Your task to perform on an android device: open app "Facebook Messenger" (install if not already installed) and go to login screen Image 0: 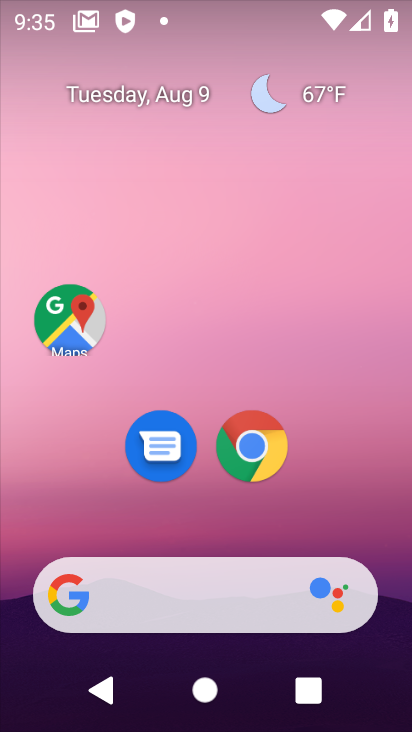
Step 0: drag from (218, 438) to (223, 16)
Your task to perform on an android device: open app "Facebook Messenger" (install if not already installed) and go to login screen Image 1: 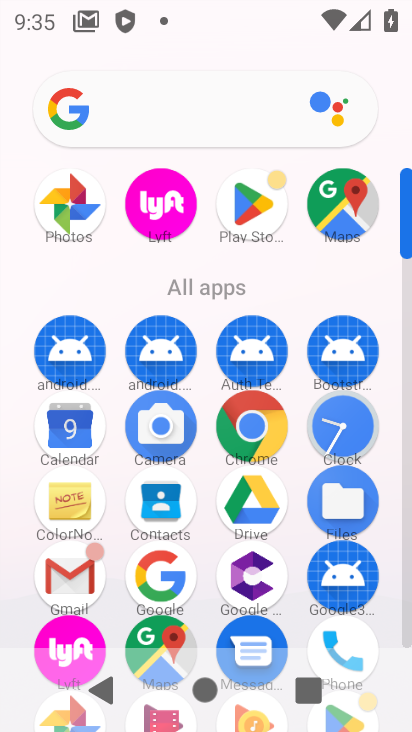
Step 1: click (252, 197)
Your task to perform on an android device: open app "Facebook Messenger" (install if not already installed) and go to login screen Image 2: 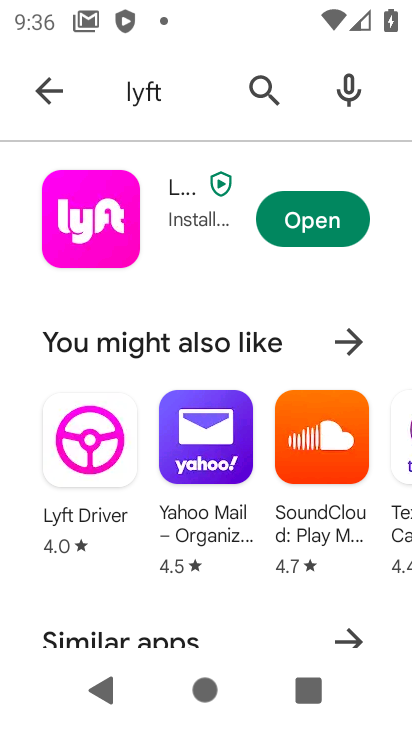
Step 2: click (261, 82)
Your task to perform on an android device: open app "Facebook Messenger" (install if not already installed) and go to login screen Image 3: 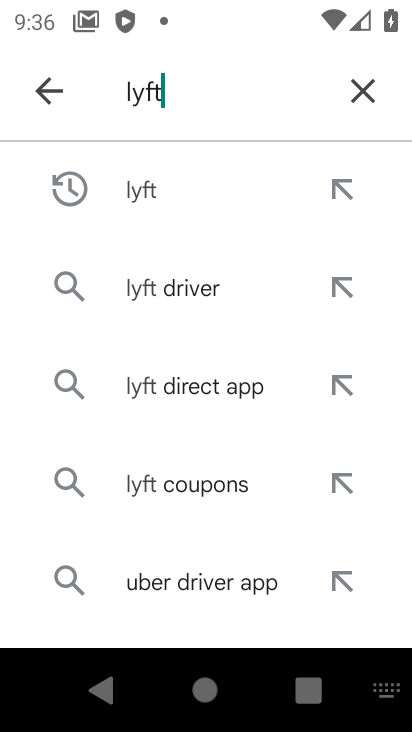
Step 3: click (372, 97)
Your task to perform on an android device: open app "Facebook Messenger" (install if not already installed) and go to login screen Image 4: 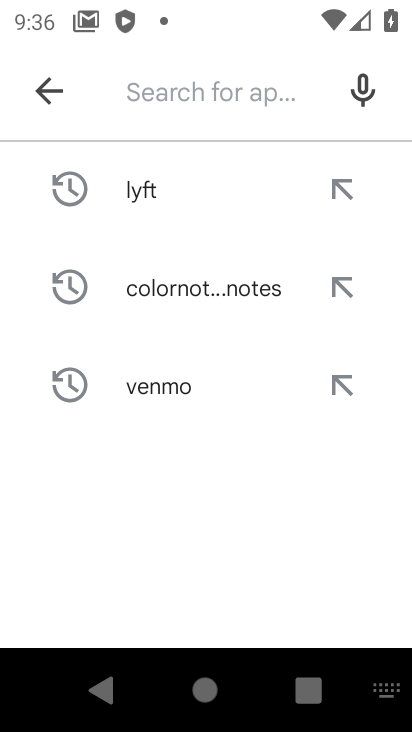
Step 4: click (165, 97)
Your task to perform on an android device: open app "Facebook Messenger" (install if not already installed) and go to login screen Image 5: 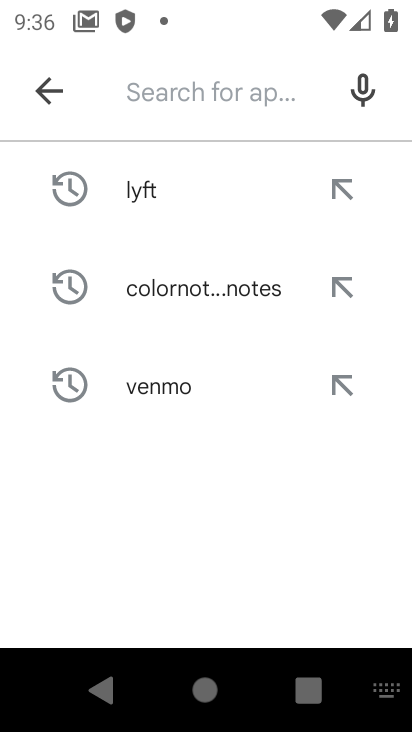
Step 5: type "facebook messenger"
Your task to perform on an android device: open app "Facebook Messenger" (install if not already installed) and go to login screen Image 6: 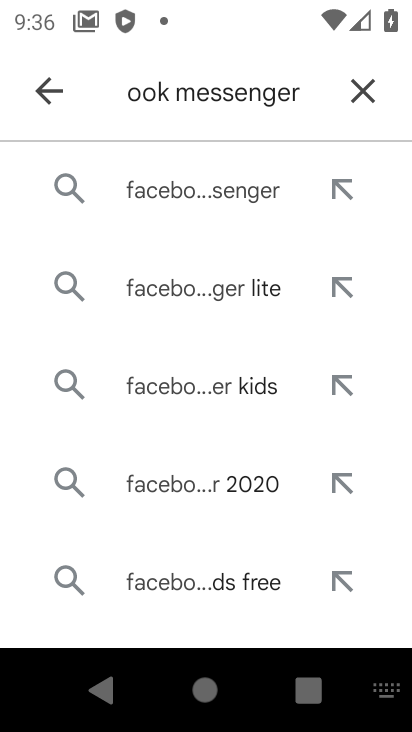
Step 6: click (182, 193)
Your task to perform on an android device: open app "Facebook Messenger" (install if not already installed) and go to login screen Image 7: 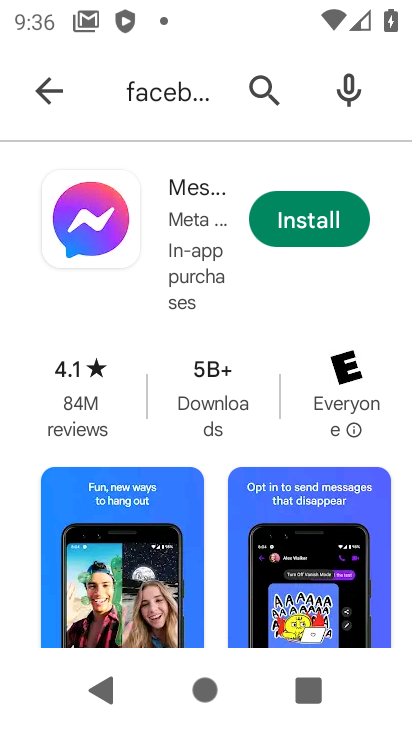
Step 7: click (287, 229)
Your task to perform on an android device: open app "Facebook Messenger" (install if not already installed) and go to login screen Image 8: 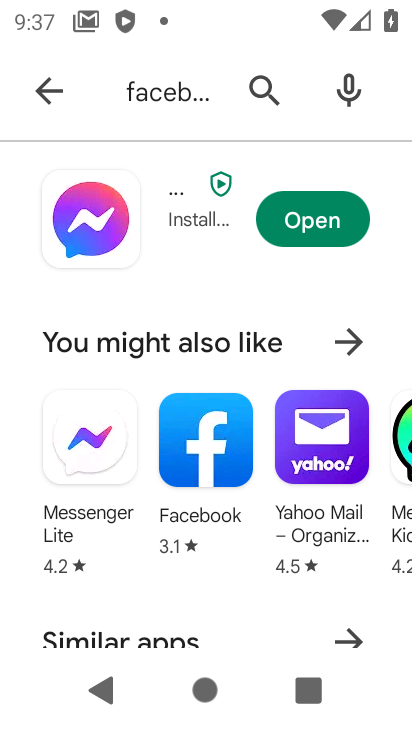
Step 8: click (342, 235)
Your task to perform on an android device: open app "Facebook Messenger" (install if not already installed) and go to login screen Image 9: 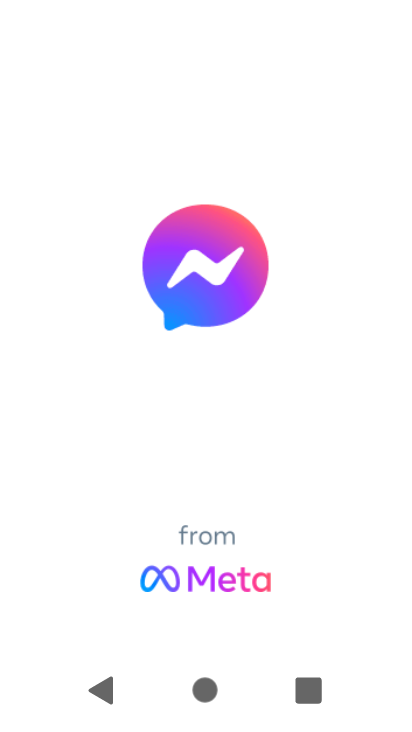
Step 9: task complete